Your task to perform on an android device: delete the emails in spam in the gmail app Image 0: 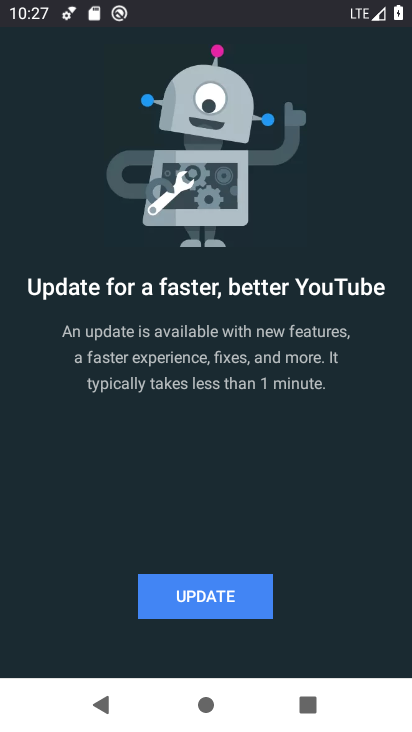
Step 0: press home button
Your task to perform on an android device: delete the emails in spam in the gmail app Image 1: 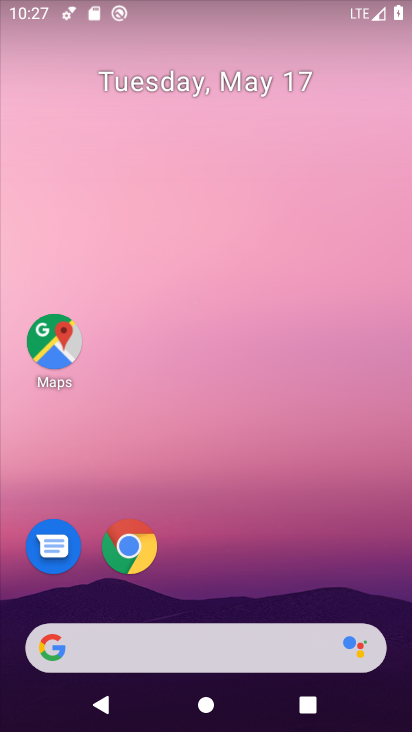
Step 1: drag from (199, 588) to (223, 65)
Your task to perform on an android device: delete the emails in spam in the gmail app Image 2: 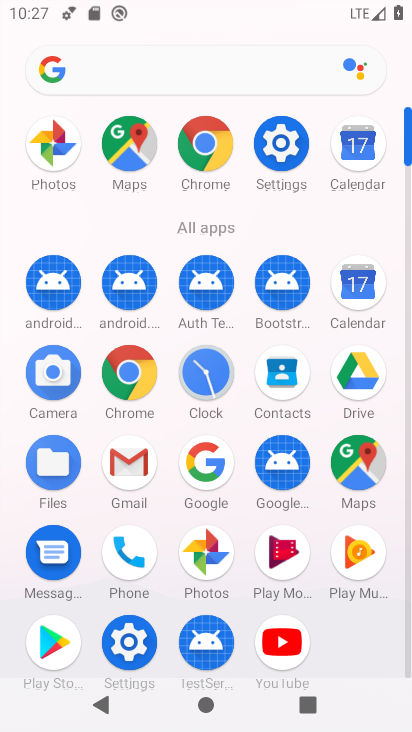
Step 2: click (143, 462)
Your task to perform on an android device: delete the emails in spam in the gmail app Image 3: 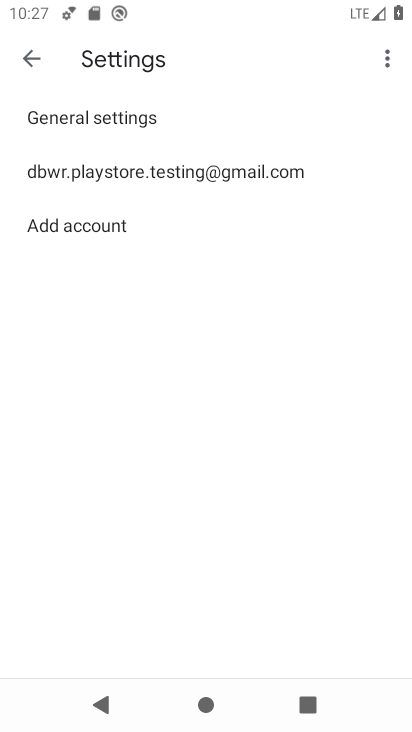
Step 3: click (40, 53)
Your task to perform on an android device: delete the emails in spam in the gmail app Image 4: 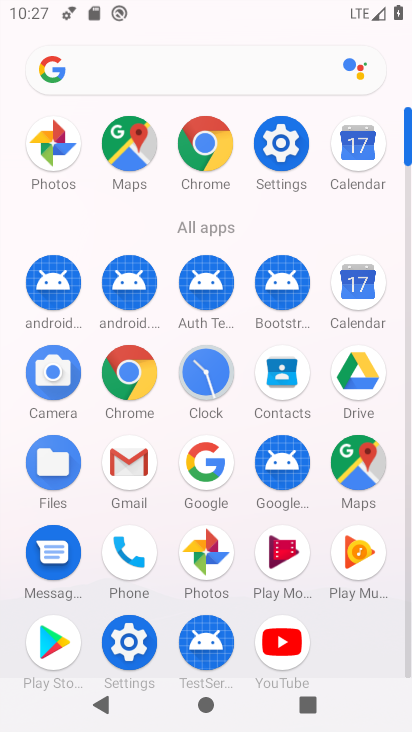
Step 4: click (131, 475)
Your task to perform on an android device: delete the emails in spam in the gmail app Image 5: 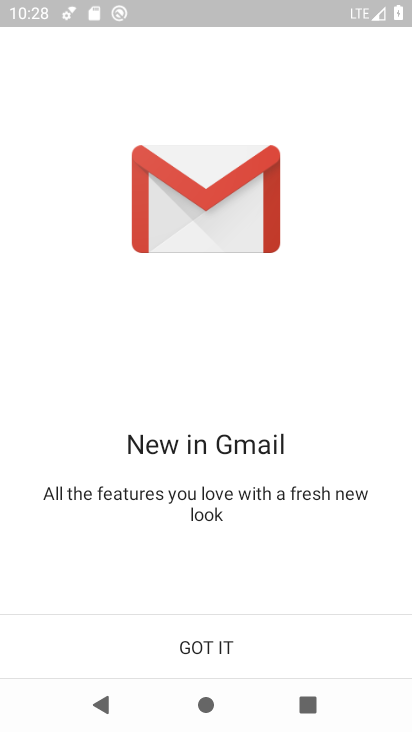
Step 5: click (199, 657)
Your task to perform on an android device: delete the emails in spam in the gmail app Image 6: 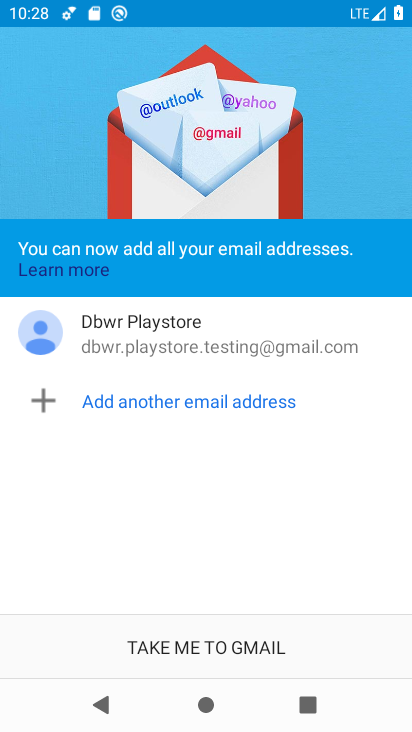
Step 6: click (219, 649)
Your task to perform on an android device: delete the emails in spam in the gmail app Image 7: 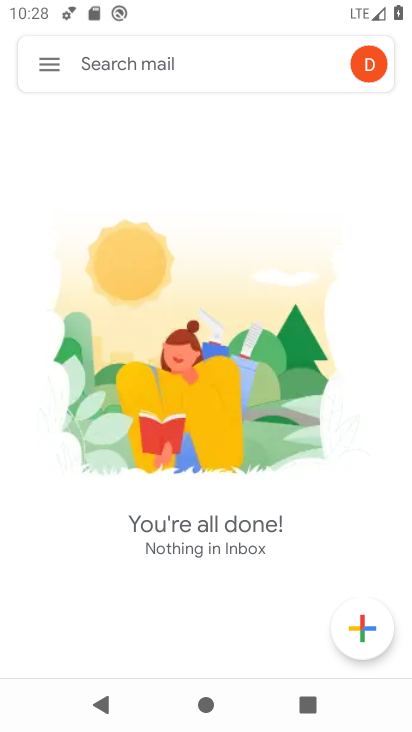
Step 7: click (47, 57)
Your task to perform on an android device: delete the emails in spam in the gmail app Image 8: 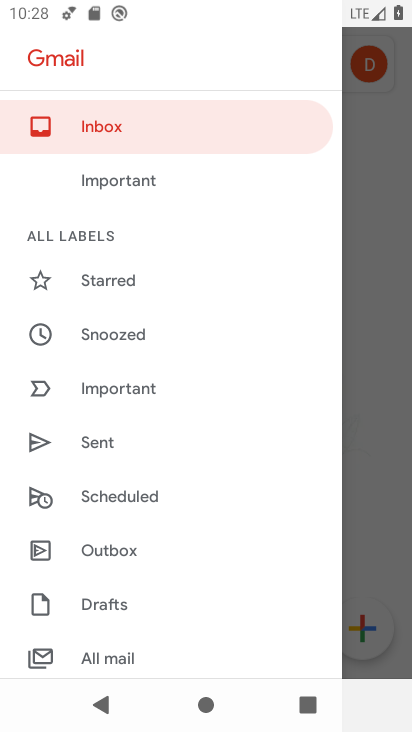
Step 8: drag from (101, 509) to (146, 296)
Your task to perform on an android device: delete the emails in spam in the gmail app Image 9: 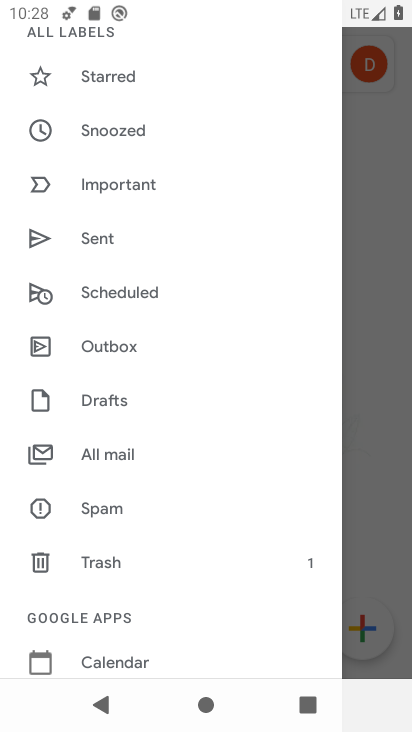
Step 9: click (102, 513)
Your task to perform on an android device: delete the emails in spam in the gmail app Image 10: 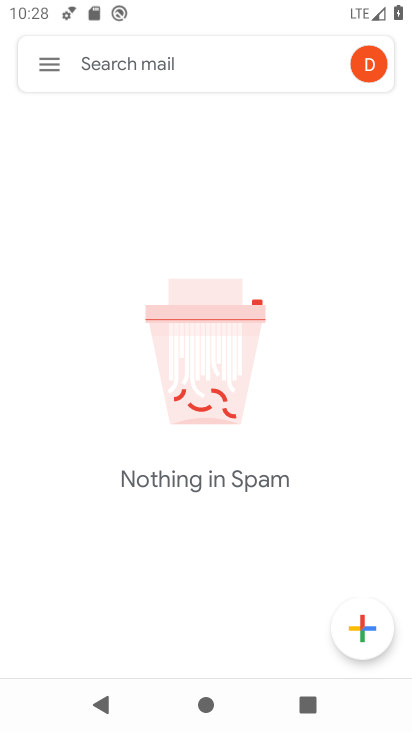
Step 10: task complete